Your task to perform on an android device: change the clock display to analog Image 0: 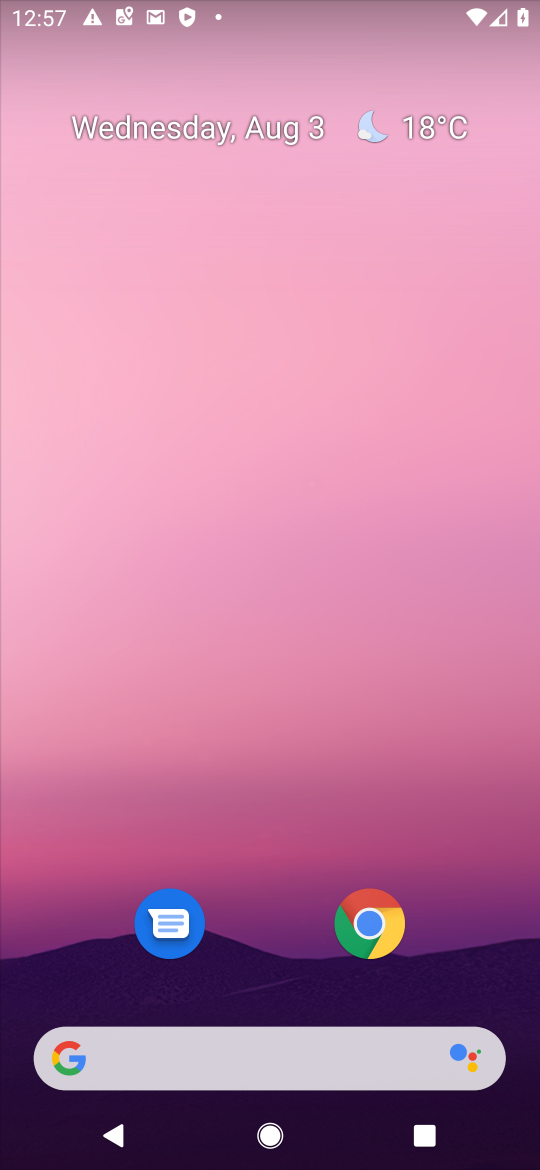
Step 0: drag from (294, 721) to (294, 204)
Your task to perform on an android device: change the clock display to analog Image 1: 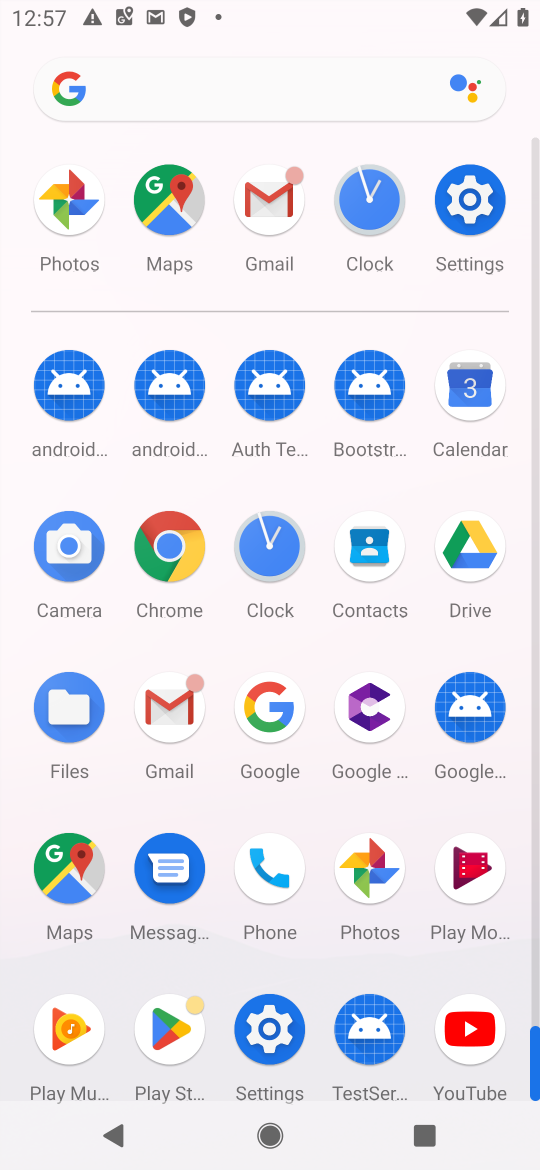
Step 1: click (259, 540)
Your task to perform on an android device: change the clock display to analog Image 2: 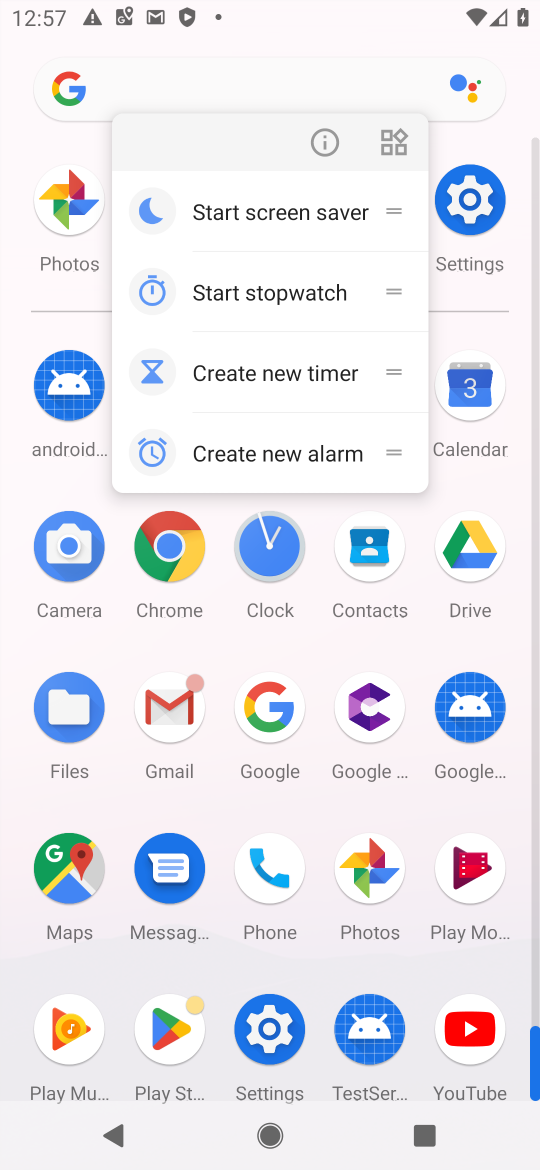
Step 2: click (310, 135)
Your task to perform on an android device: change the clock display to analog Image 3: 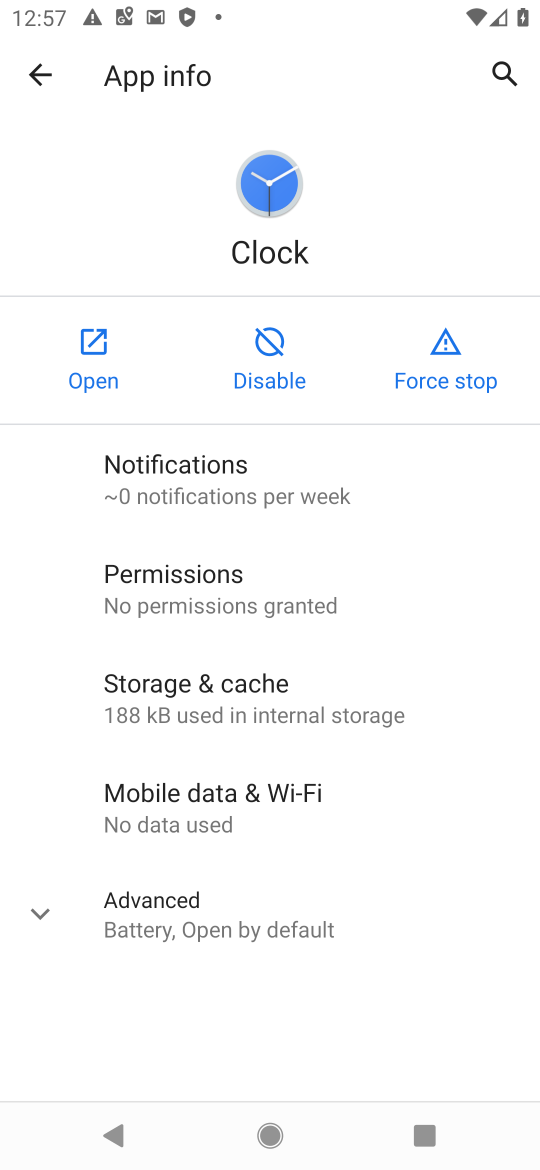
Step 3: click (100, 359)
Your task to perform on an android device: change the clock display to analog Image 4: 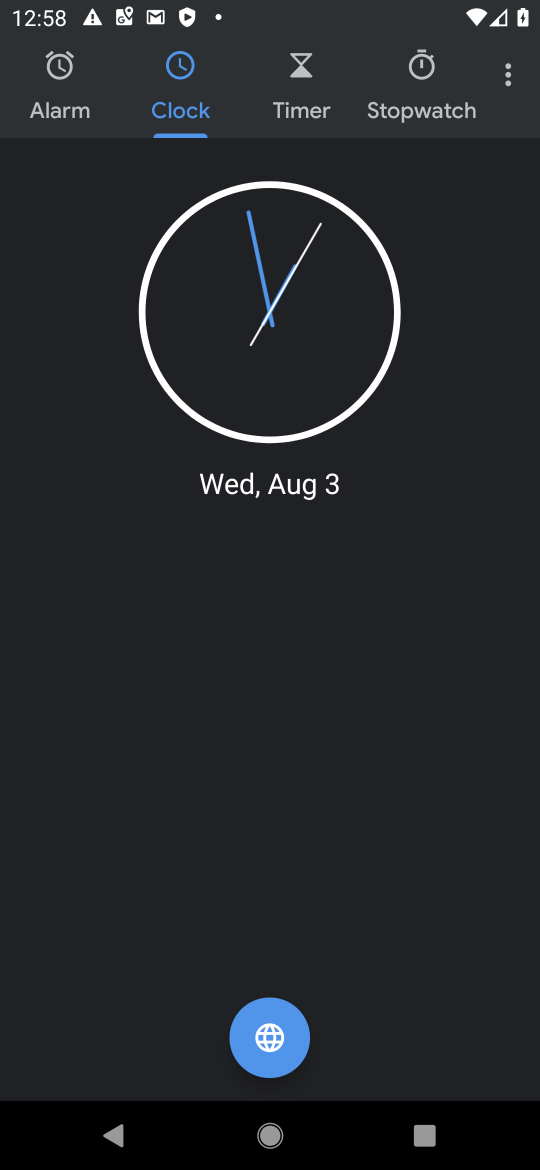
Step 4: drag from (508, 81) to (376, 162)
Your task to perform on an android device: change the clock display to analog Image 5: 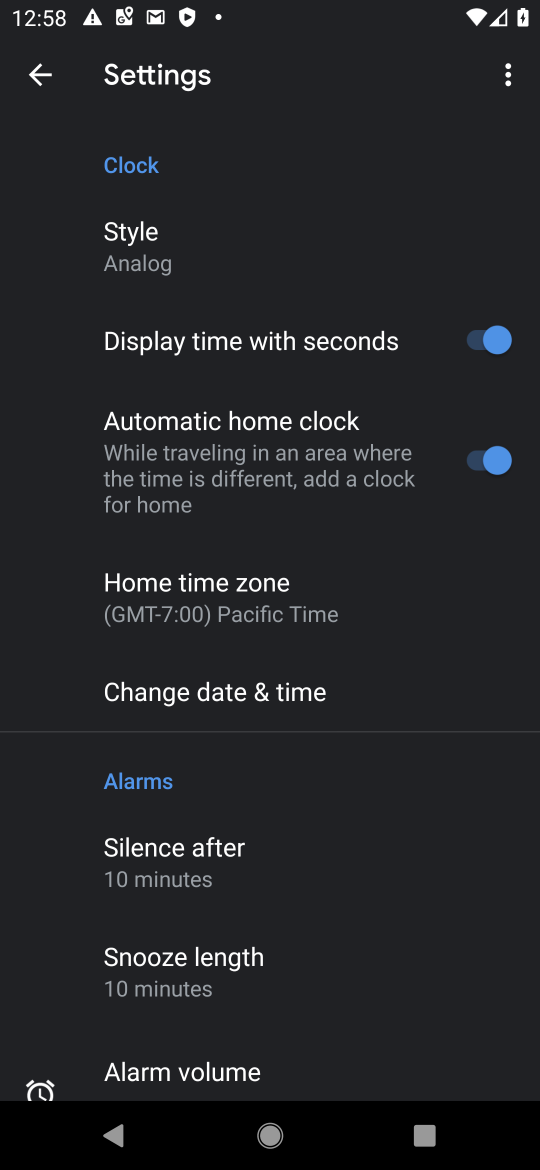
Step 5: click (174, 251)
Your task to perform on an android device: change the clock display to analog Image 6: 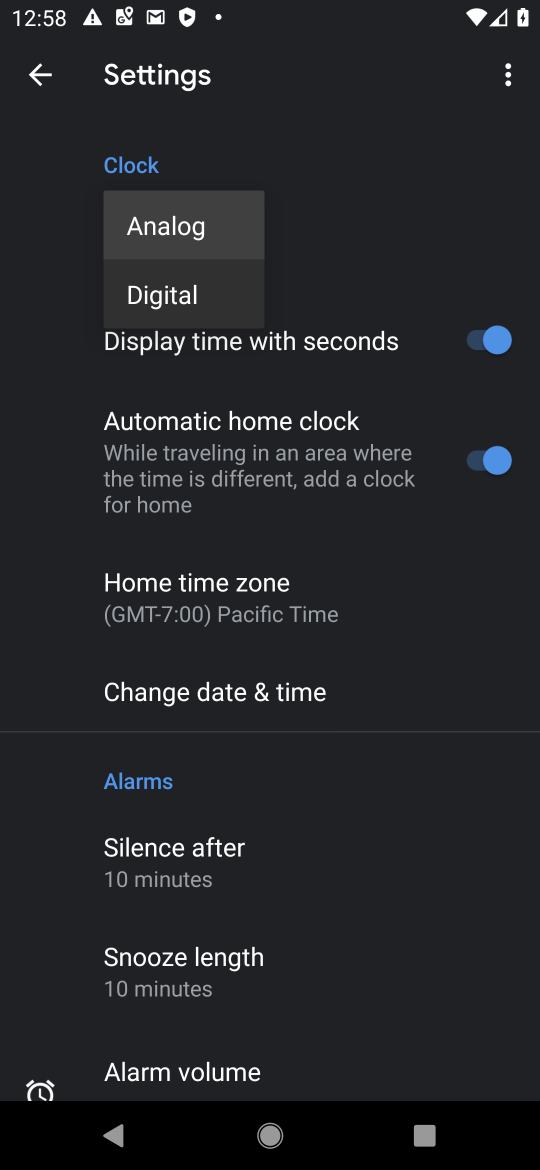
Step 6: task complete